Your task to perform on an android device: What's the weather going to be this weekend? Image 0: 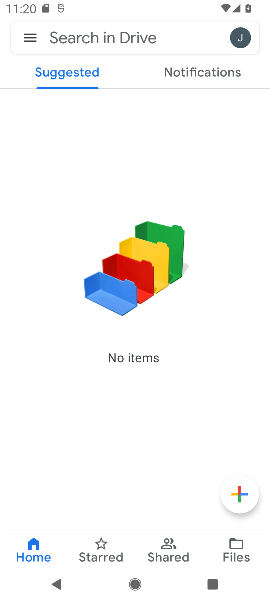
Step 0: press home button
Your task to perform on an android device: What's the weather going to be this weekend? Image 1: 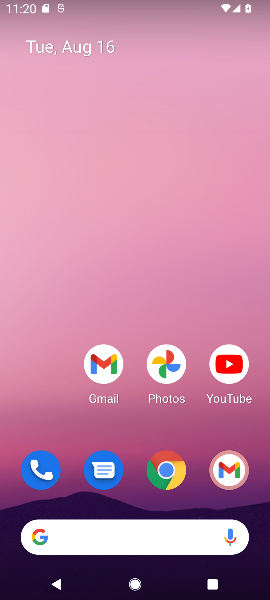
Step 1: click (107, 539)
Your task to perform on an android device: What's the weather going to be this weekend? Image 2: 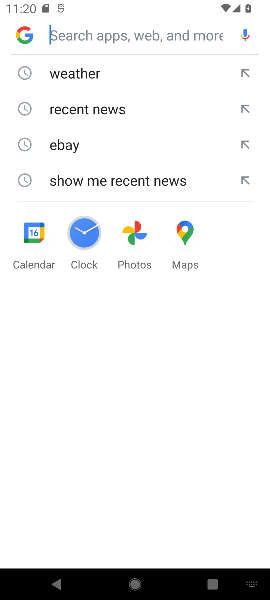
Step 2: click (123, 71)
Your task to perform on an android device: What's the weather going to be this weekend? Image 3: 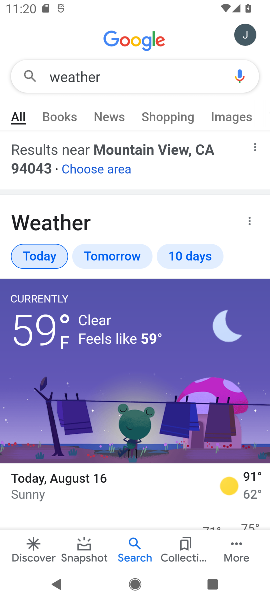
Step 3: click (189, 256)
Your task to perform on an android device: What's the weather going to be this weekend? Image 4: 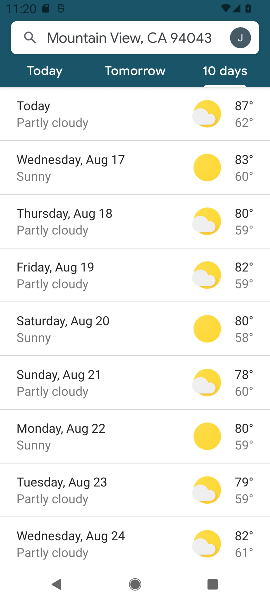
Step 4: click (107, 328)
Your task to perform on an android device: What's the weather going to be this weekend? Image 5: 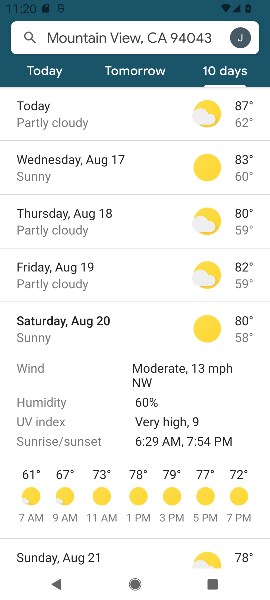
Step 5: task complete